Your task to perform on an android device: Do I have any events tomorrow? Image 0: 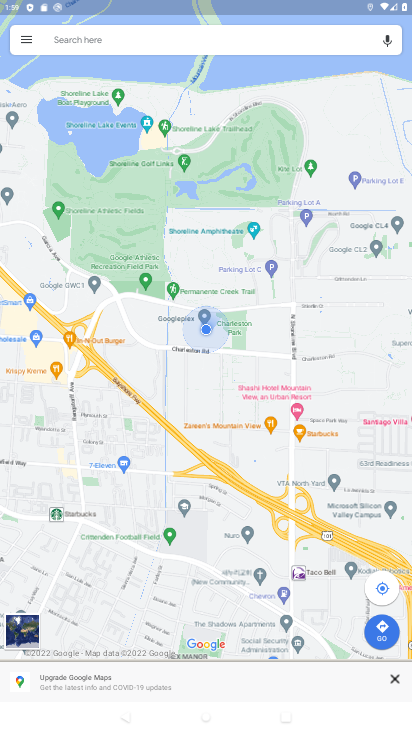
Step 0: press home button
Your task to perform on an android device: Do I have any events tomorrow? Image 1: 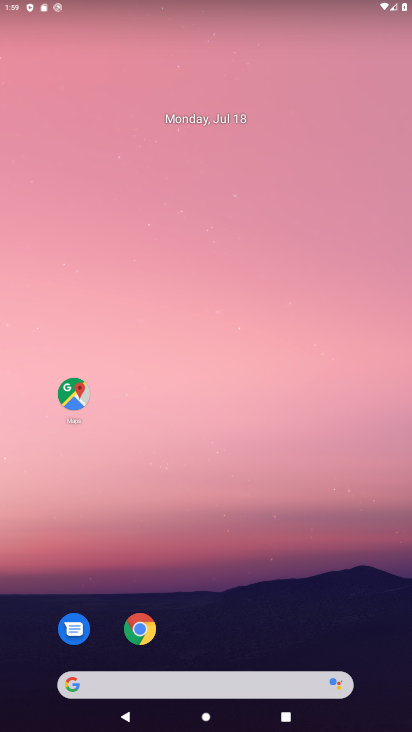
Step 1: drag from (221, 633) to (220, 204)
Your task to perform on an android device: Do I have any events tomorrow? Image 2: 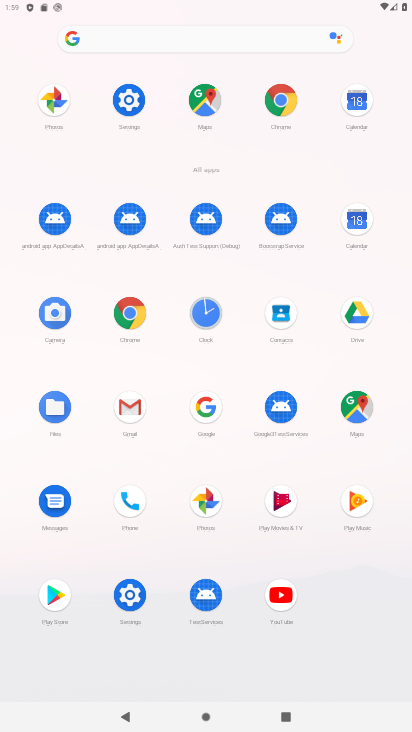
Step 2: click (356, 108)
Your task to perform on an android device: Do I have any events tomorrow? Image 3: 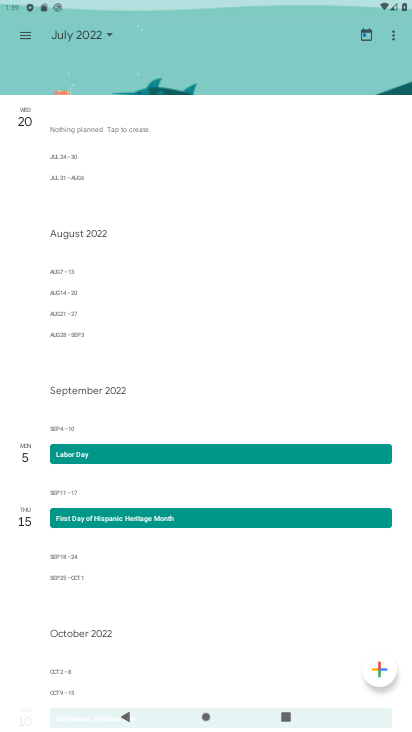
Step 3: click (114, 32)
Your task to perform on an android device: Do I have any events tomorrow? Image 4: 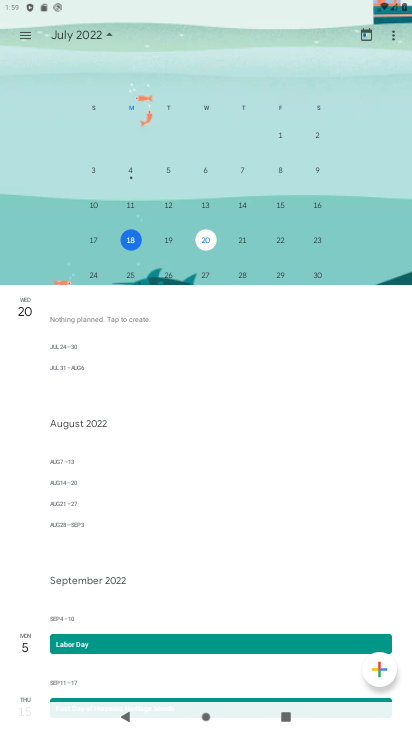
Step 4: click (167, 251)
Your task to perform on an android device: Do I have any events tomorrow? Image 5: 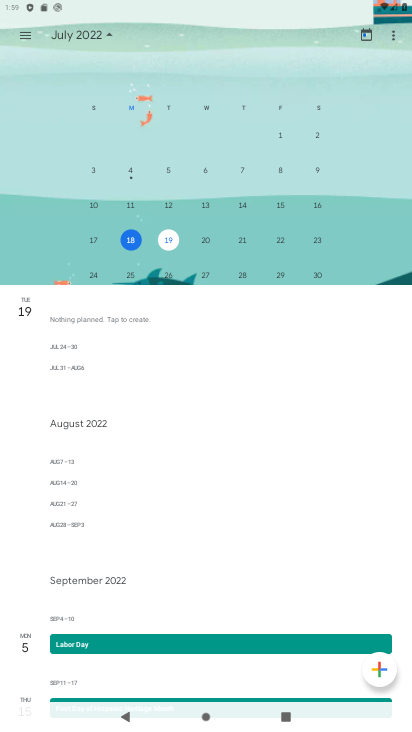
Step 5: task complete